Your task to perform on an android device: Toggle the flashlight Image 0: 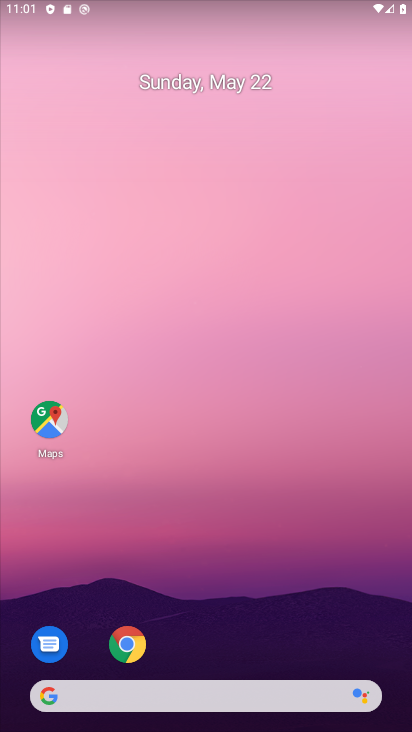
Step 0: drag from (375, 654) to (315, 24)
Your task to perform on an android device: Toggle the flashlight Image 1: 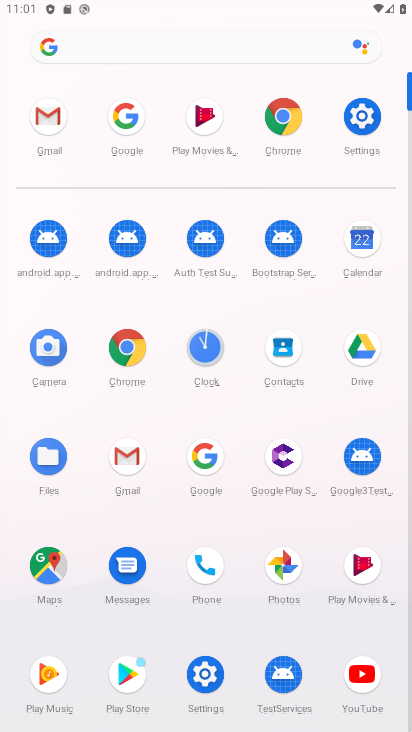
Step 1: click (367, 119)
Your task to perform on an android device: Toggle the flashlight Image 2: 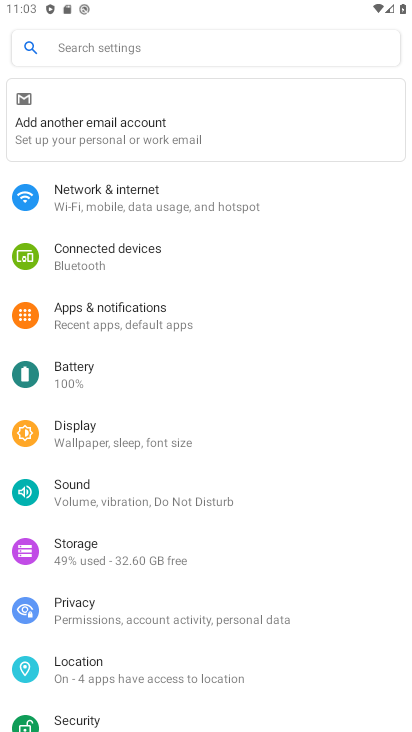
Step 2: task complete